Your task to perform on an android device: Open the calendar app, open the side menu, and click the "Day" option Image 0: 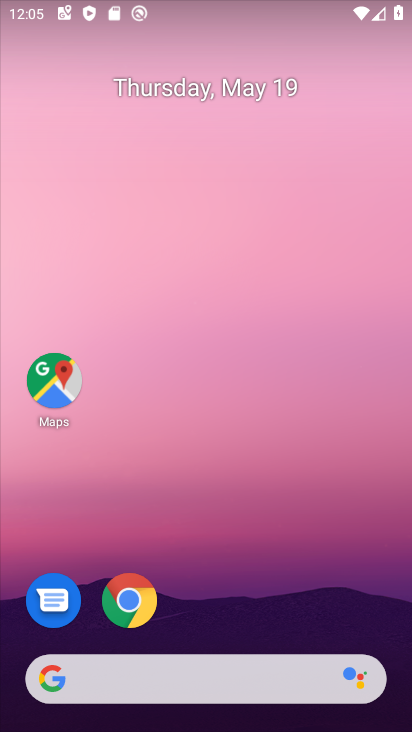
Step 0: press home button
Your task to perform on an android device: Open the calendar app, open the side menu, and click the "Day" option Image 1: 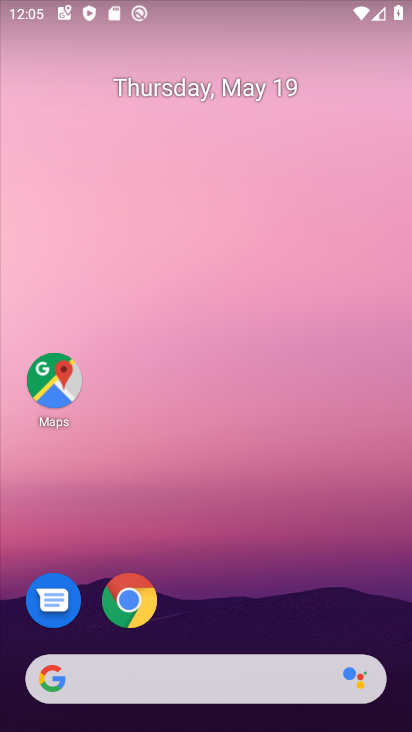
Step 1: drag from (211, 503) to (168, 53)
Your task to perform on an android device: Open the calendar app, open the side menu, and click the "Day" option Image 2: 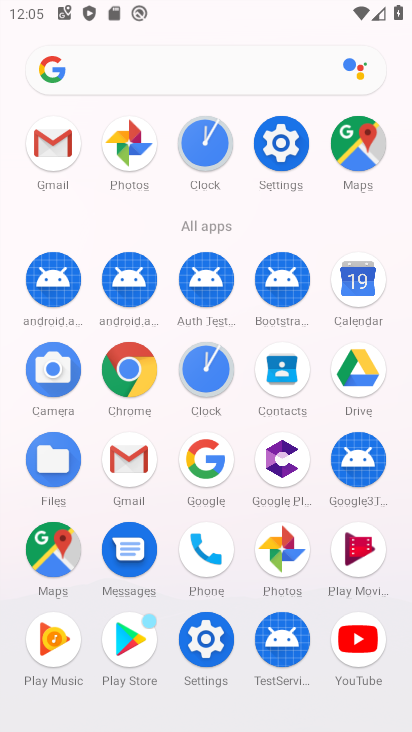
Step 2: click (366, 284)
Your task to perform on an android device: Open the calendar app, open the side menu, and click the "Day" option Image 3: 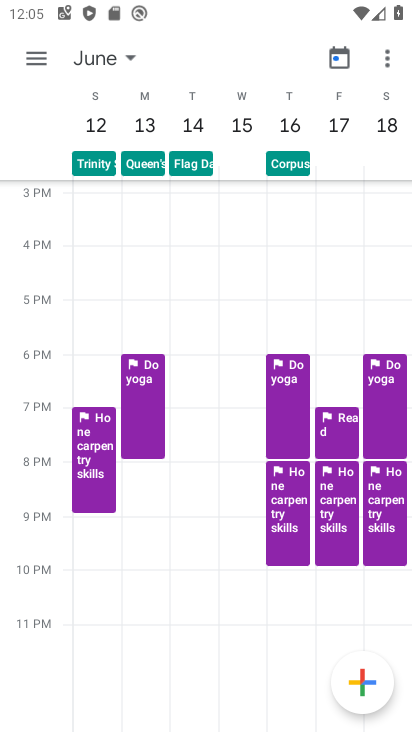
Step 3: click (36, 63)
Your task to perform on an android device: Open the calendar app, open the side menu, and click the "Day" option Image 4: 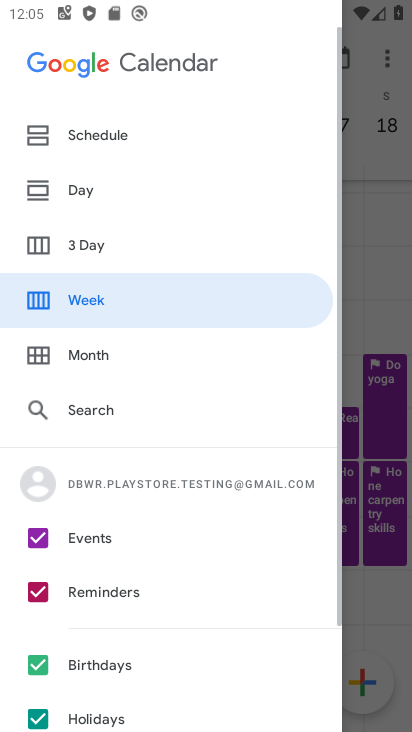
Step 4: click (65, 180)
Your task to perform on an android device: Open the calendar app, open the side menu, and click the "Day" option Image 5: 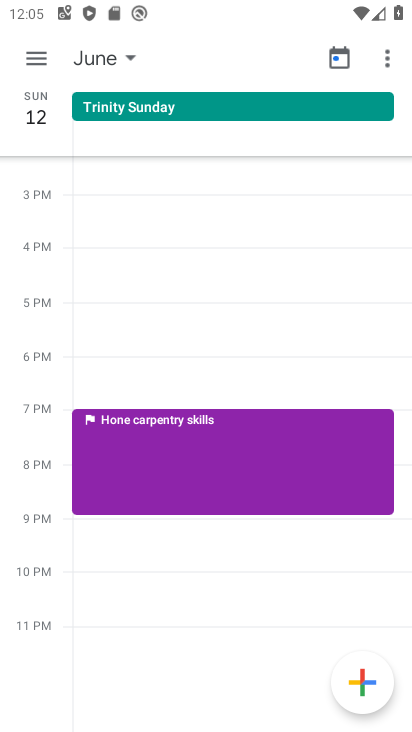
Step 5: task complete